Your task to perform on an android device: clear all cookies in the chrome app Image 0: 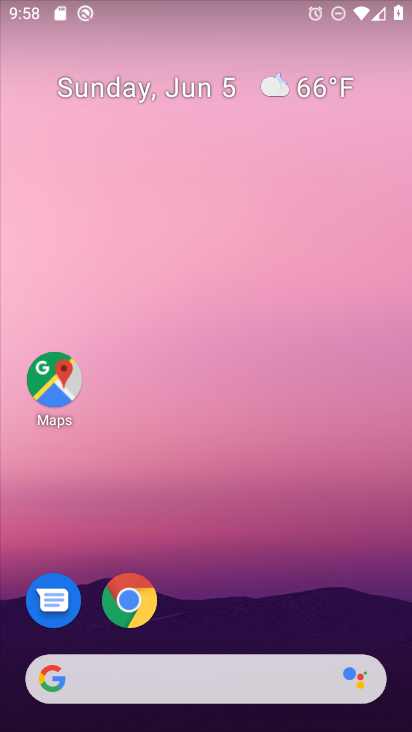
Step 0: drag from (336, 619) to (303, 29)
Your task to perform on an android device: clear all cookies in the chrome app Image 1: 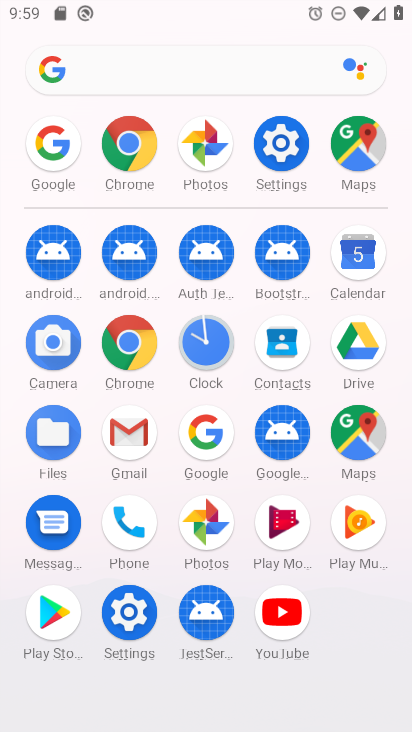
Step 1: click (126, 344)
Your task to perform on an android device: clear all cookies in the chrome app Image 2: 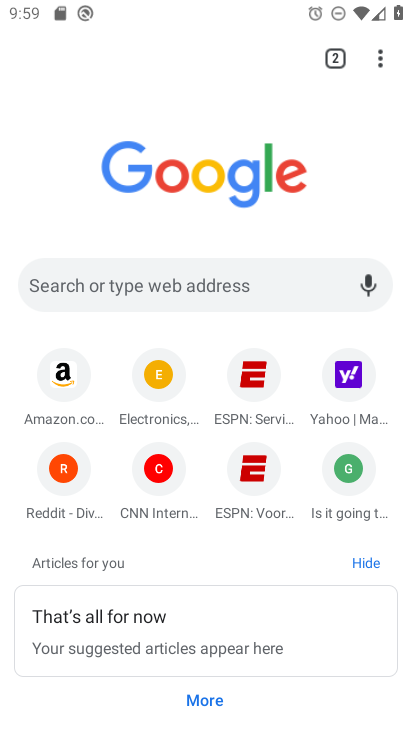
Step 2: click (381, 56)
Your task to perform on an android device: clear all cookies in the chrome app Image 3: 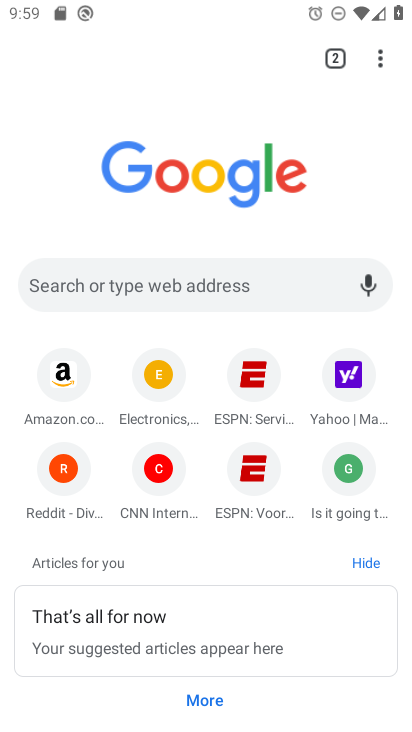
Step 3: click (381, 51)
Your task to perform on an android device: clear all cookies in the chrome app Image 4: 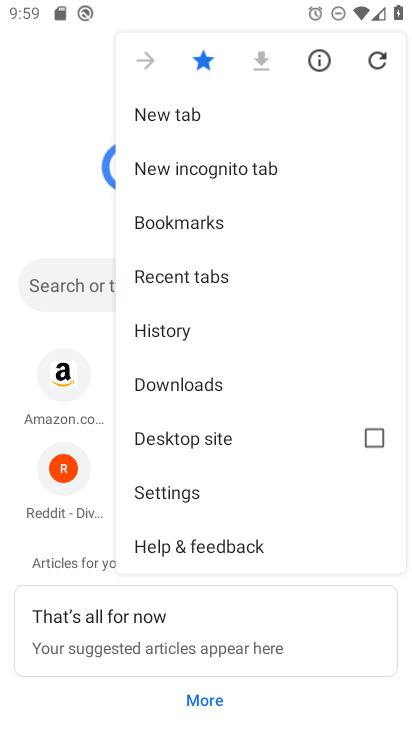
Step 4: click (197, 330)
Your task to perform on an android device: clear all cookies in the chrome app Image 5: 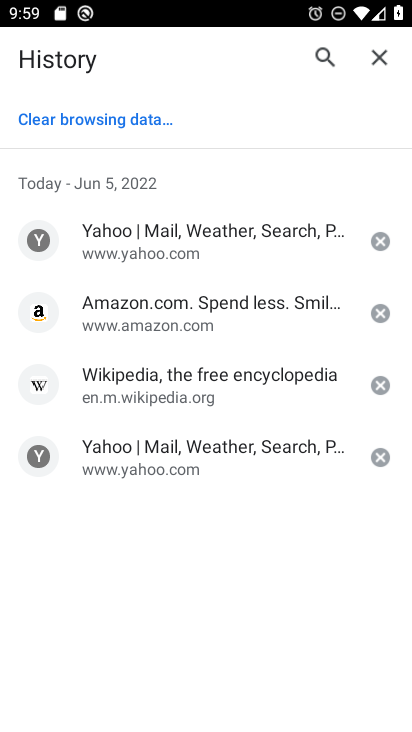
Step 5: click (135, 114)
Your task to perform on an android device: clear all cookies in the chrome app Image 6: 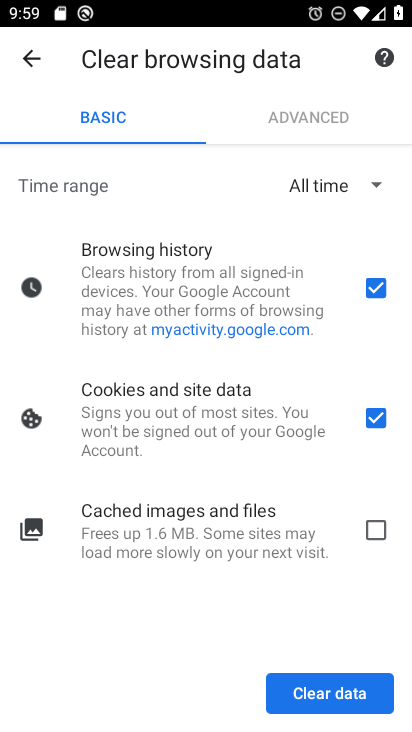
Step 6: click (302, 692)
Your task to perform on an android device: clear all cookies in the chrome app Image 7: 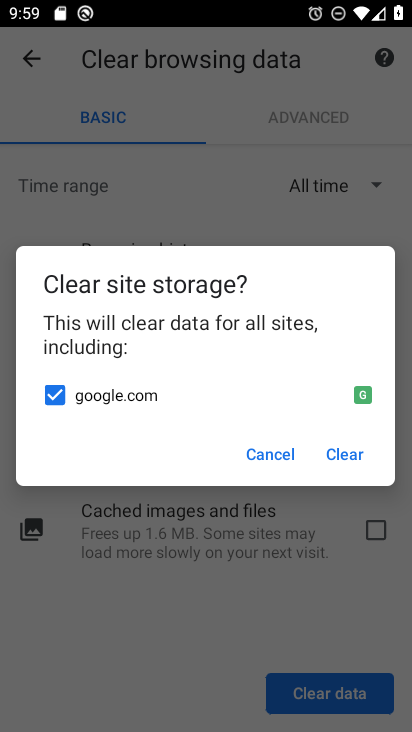
Step 7: click (344, 458)
Your task to perform on an android device: clear all cookies in the chrome app Image 8: 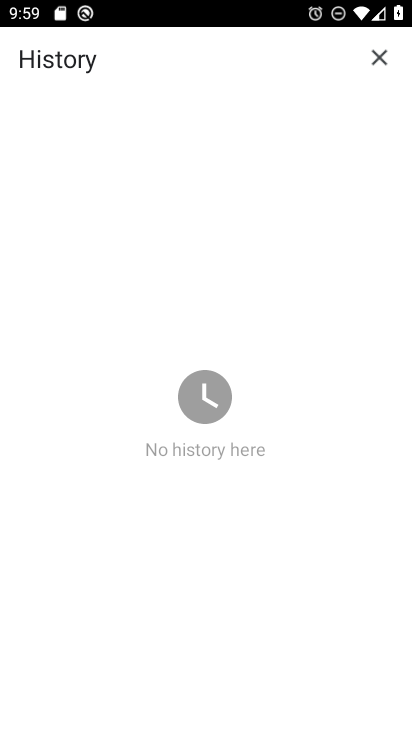
Step 8: task complete